Your task to perform on an android device: Go to notification settings Image 0: 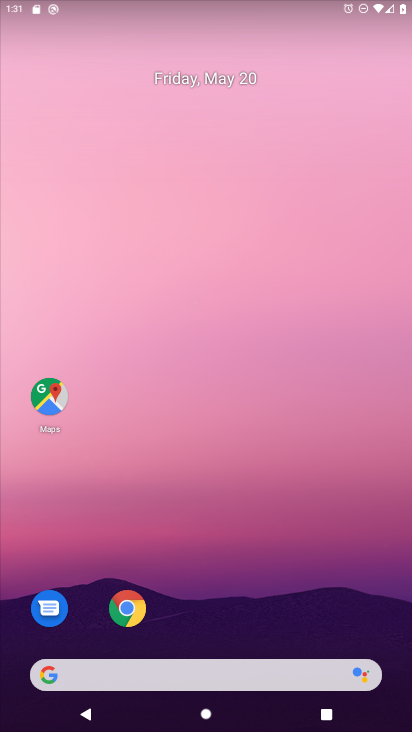
Step 0: press home button
Your task to perform on an android device: Go to notification settings Image 1: 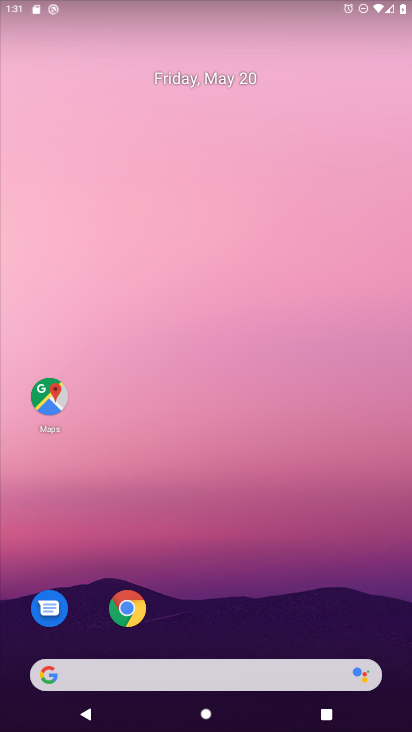
Step 1: drag from (333, 629) to (321, 14)
Your task to perform on an android device: Go to notification settings Image 2: 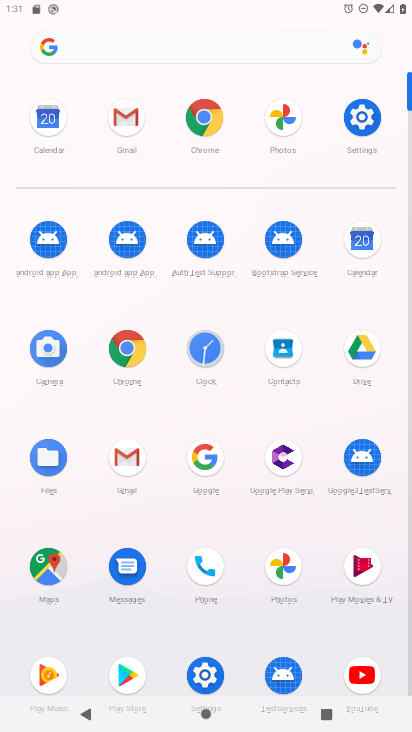
Step 2: click (363, 127)
Your task to perform on an android device: Go to notification settings Image 3: 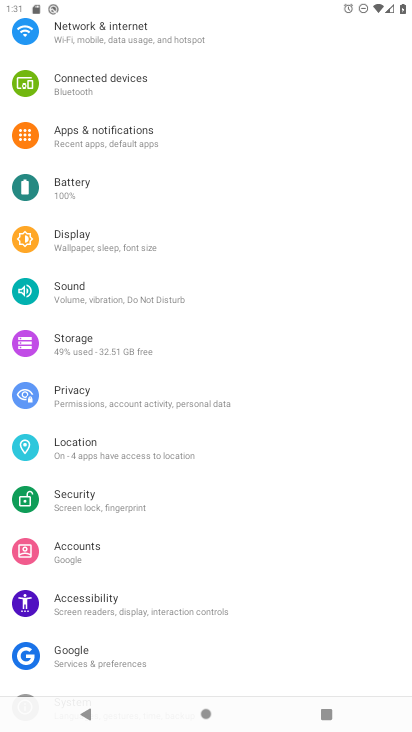
Step 3: click (140, 150)
Your task to perform on an android device: Go to notification settings Image 4: 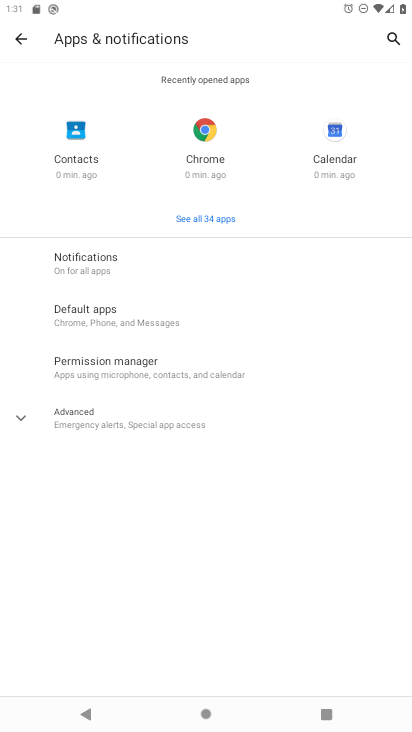
Step 4: task complete